Your task to perform on an android device: open chrome and create a bookmark for the current page Image 0: 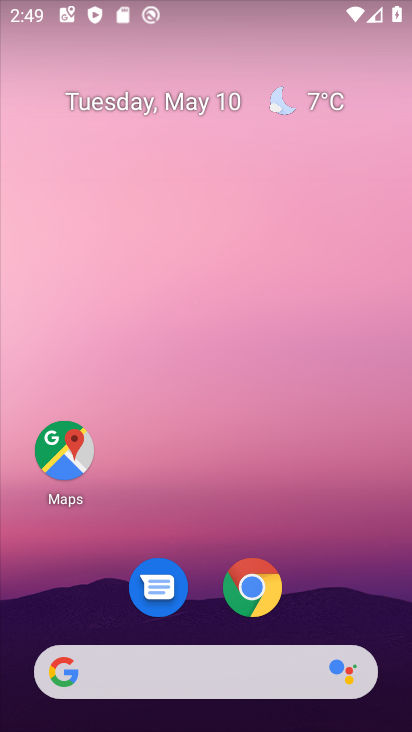
Step 0: click (263, 579)
Your task to perform on an android device: open chrome and create a bookmark for the current page Image 1: 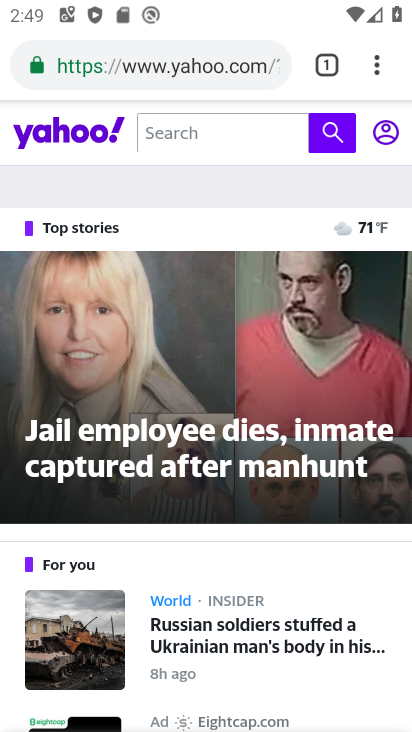
Step 1: click (379, 58)
Your task to perform on an android device: open chrome and create a bookmark for the current page Image 2: 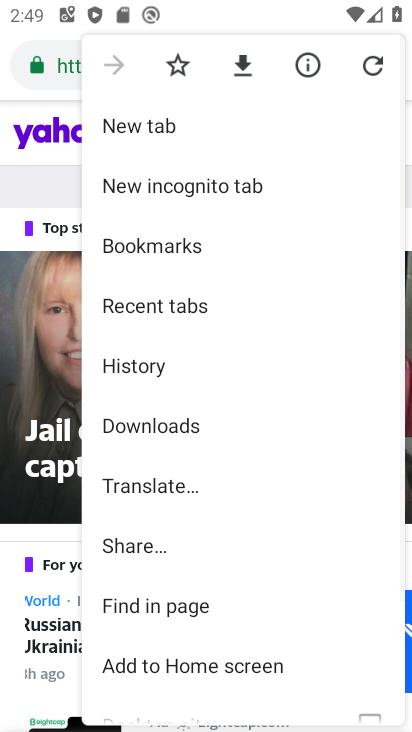
Step 2: click (182, 71)
Your task to perform on an android device: open chrome and create a bookmark for the current page Image 3: 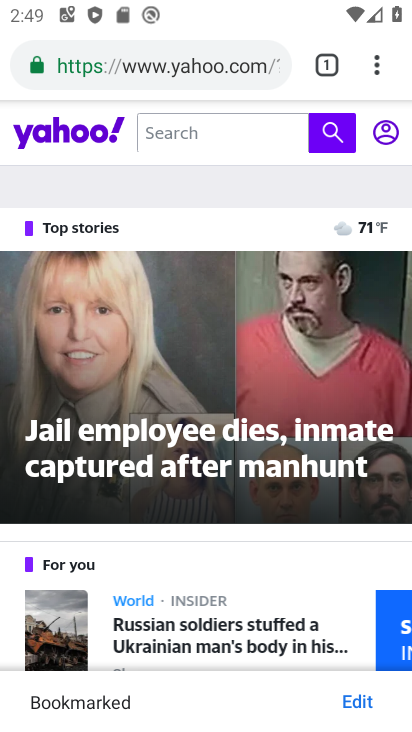
Step 3: task complete